Your task to perform on an android device: When is my next appointment? Image 0: 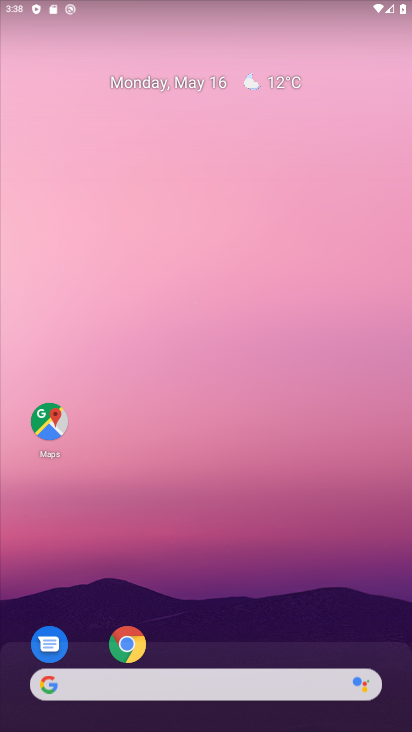
Step 0: drag from (194, 653) to (256, 197)
Your task to perform on an android device: When is my next appointment? Image 1: 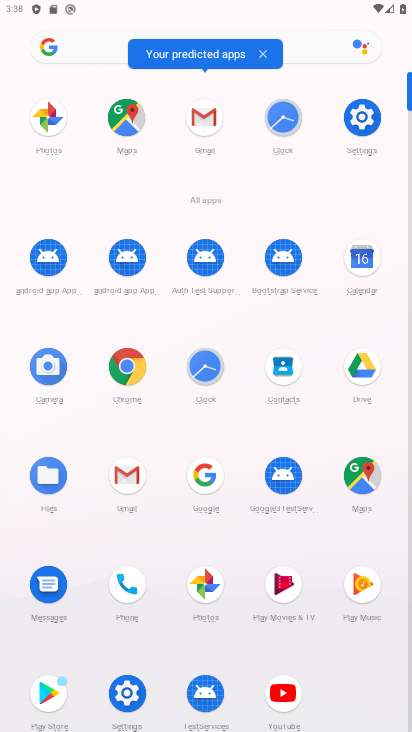
Step 1: press back button
Your task to perform on an android device: When is my next appointment? Image 2: 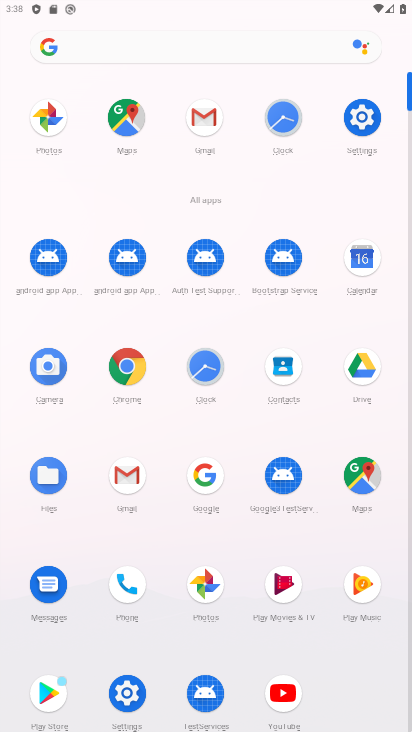
Step 2: press back button
Your task to perform on an android device: When is my next appointment? Image 3: 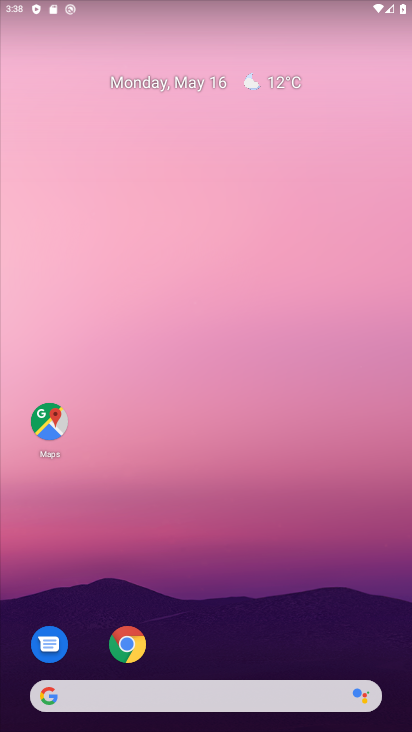
Step 3: drag from (216, 501) to (296, 99)
Your task to perform on an android device: When is my next appointment? Image 4: 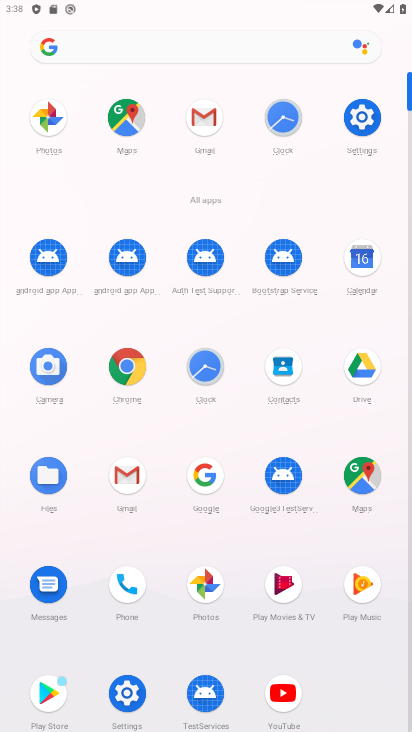
Step 4: click (366, 243)
Your task to perform on an android device: When is my next appointment? Image 5: 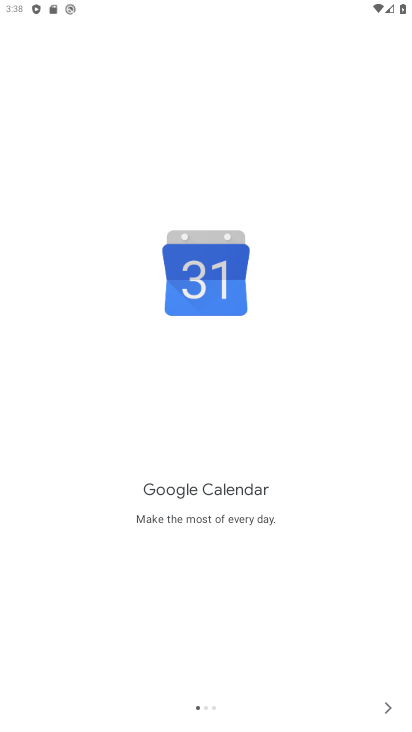
Step 5: click (380, 697)
Your task to perform on an android device: When is my next appointment? Image 6: 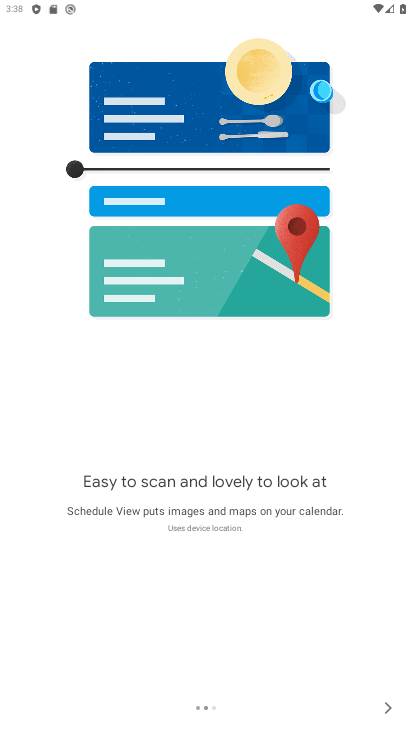
Step 6: click (380, 697)
Your task to perform on an android device: When is my next appointment? Image 7: 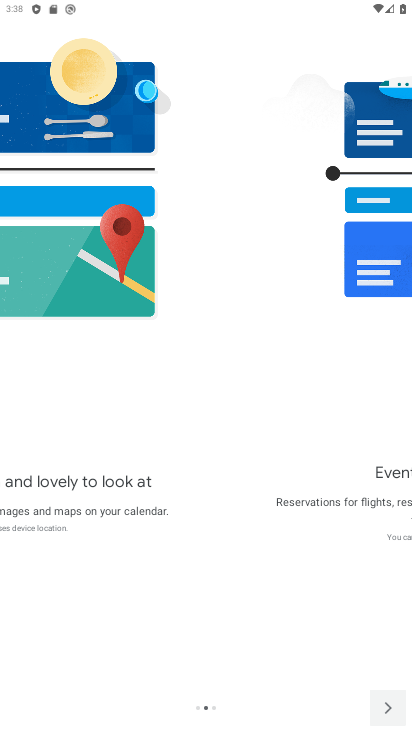
Step 7: click (380, 697)
Your task to perform on an android device: When is my next appointment? Image 8: 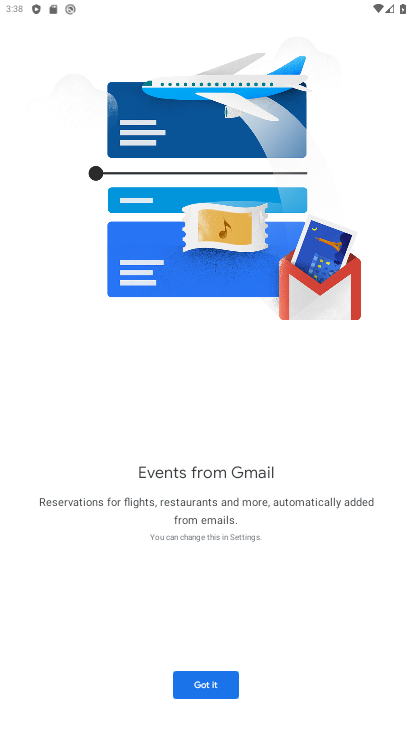
Step 8: click (203, 687)
Your task to perform on an android device: When is my next appointment? Image 9: 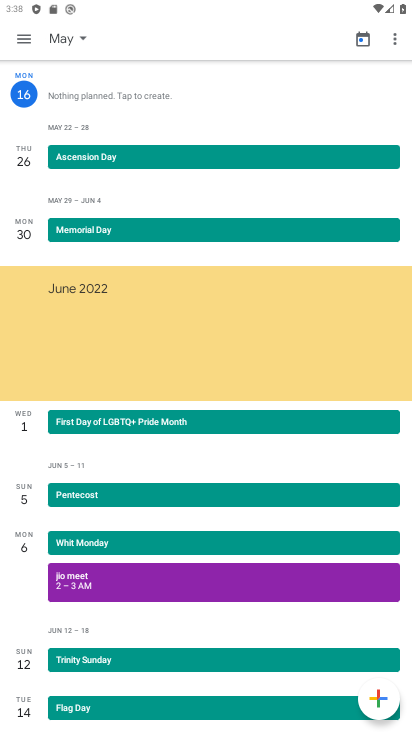
Step 9: click (25, 43)
Your task to perform on an android device: When is my next appointment? Image 10: 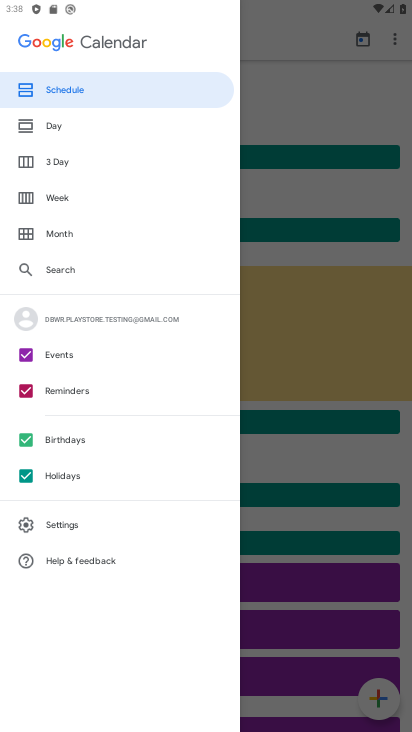
Step 10: click (84, 86)
Your task to perform on an android device: When is my next appointment? Image 11: 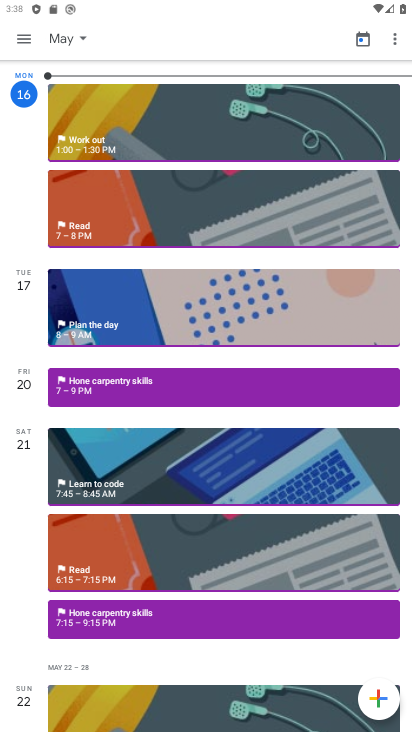
Step 11: drag from (124, 153) to (114, 628)
Your task to perform on an android device: When is my next appointment? Image 12: 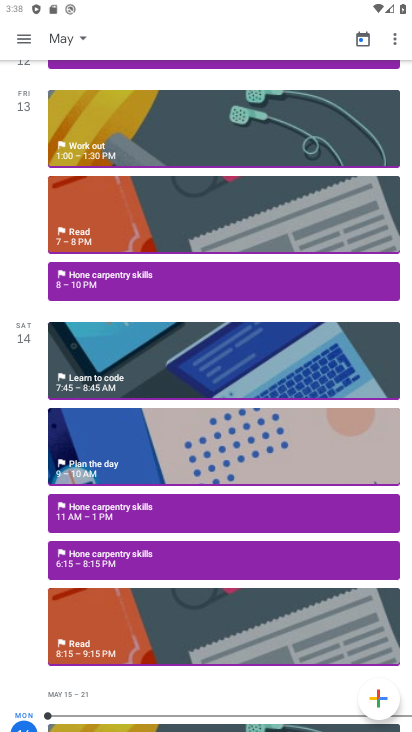
Step 12: drag from (123, 649) to (262, 125)
Your task to perform on an android device: When is my next appointment? Image 13: 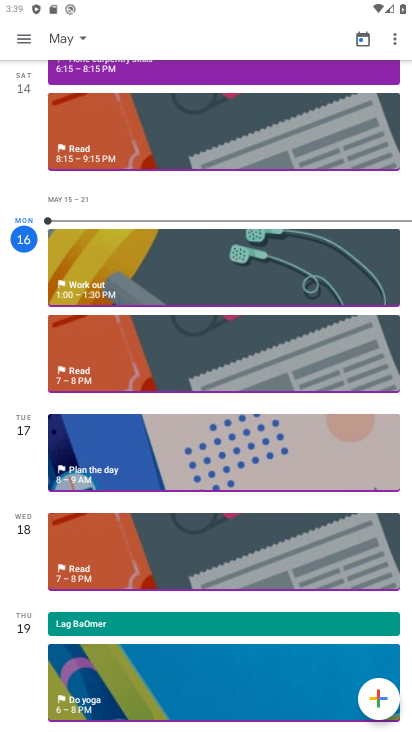
Step 13: drag from (139, 667) to (192, 375)
Your task to perform on an android device: When is my next appointment? Image 14: 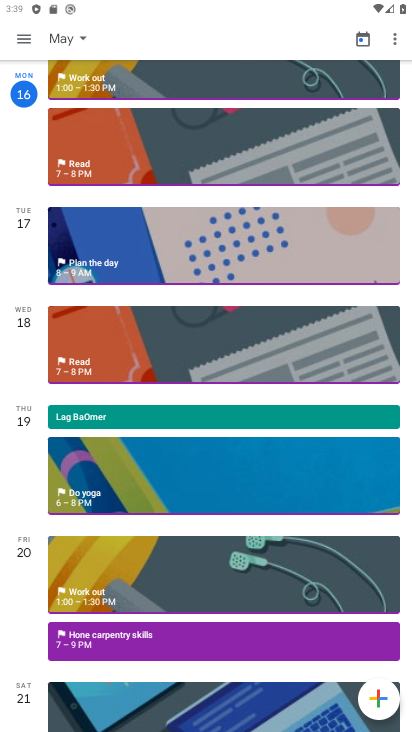
Step 14: click (114, 462)
Your task to perform on an android device: When is my next appointment? Image 15: 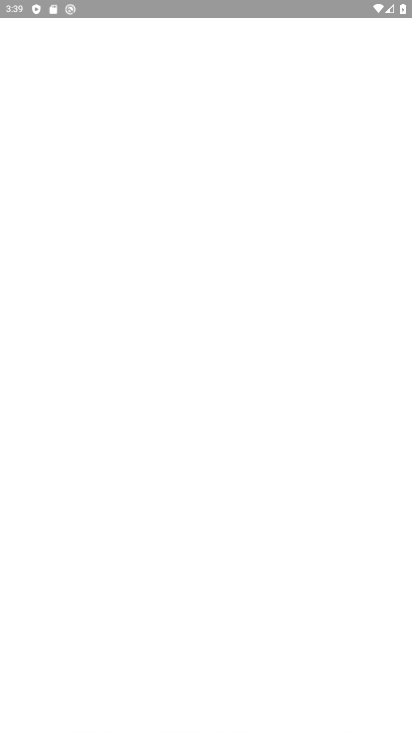
Step 15: task complete